Your task to perform on an android device: turn off data saver in the chrome app Image 0: 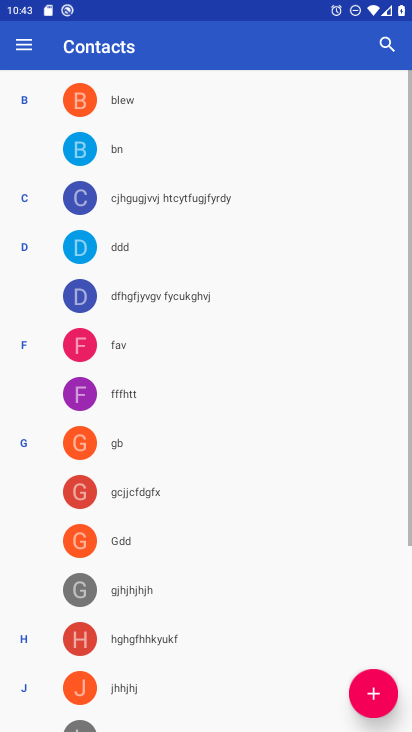
Step 0: drag from (205, 590) to (227, 229)
Your task to perform on an android device: turn off data saver in the chrome app Image 1: 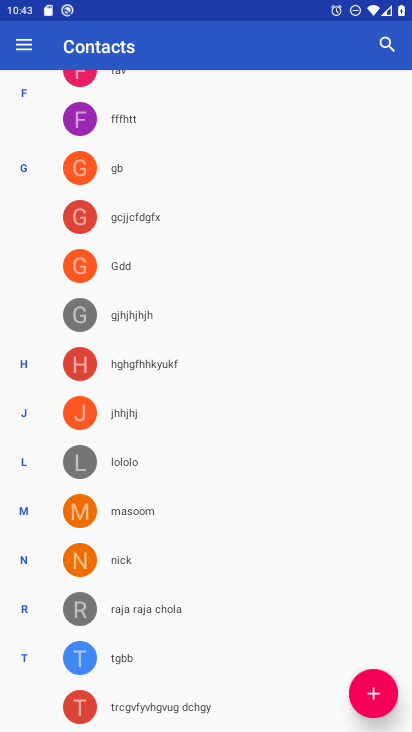
Step 1: press home button
Your task to perform on an android device: turn off data saver in the chrome app Image 2: 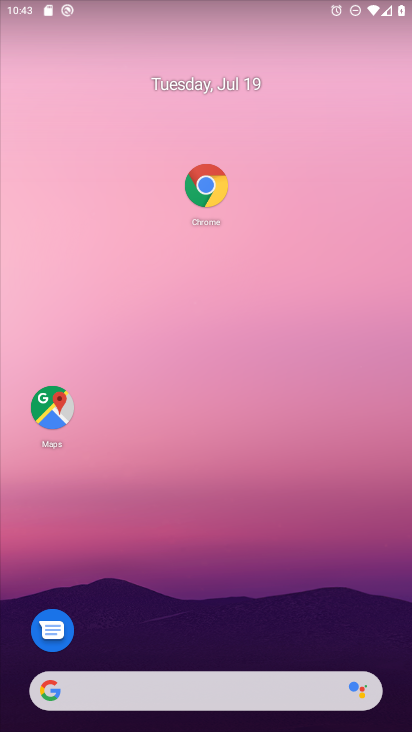
Step 2: drag from (259, 560) to (270, 126)
Your task to perform on an android device: turn off data saver in the chrome app Image 3: 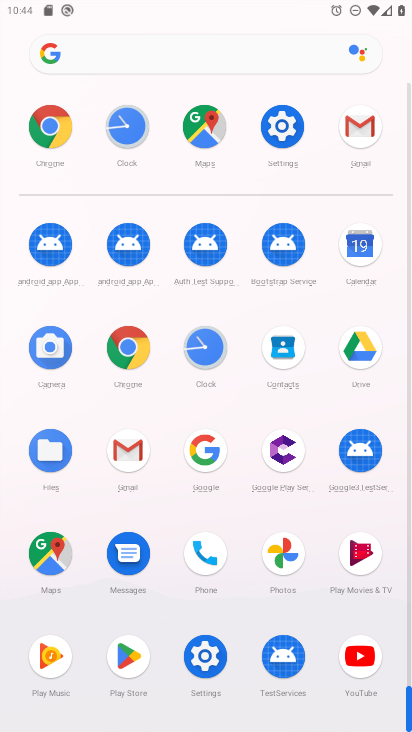
Step 3: click (131, 366)
Your task to perform on an android device: turn off data saver in the chrome app Image 4: 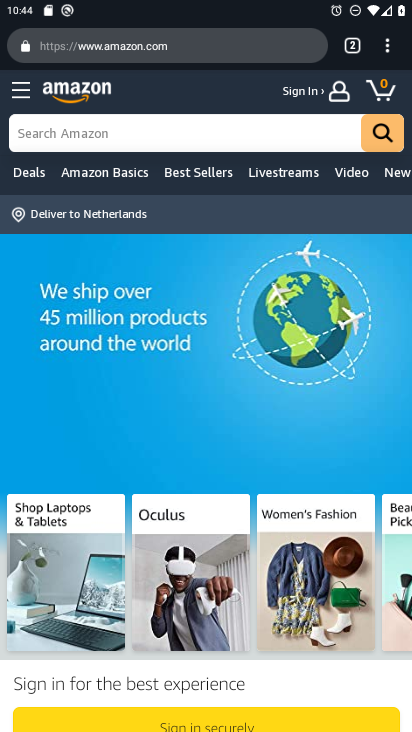
Step 4: click (385, 56)
Your task to perform on an android device: turn off data saver in the chrome app Image 5: 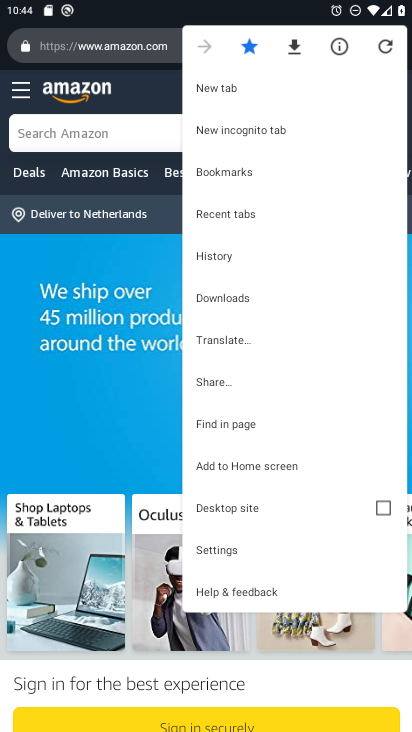
Step 5: click (241, 546)
Your task to perform on an android device: turn off data saver in the chrome app Image 6: 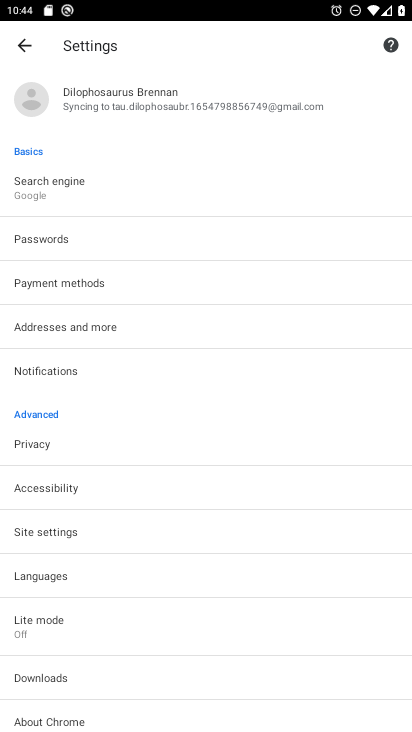
Step 6: drag from (132, 528) to (139, 339)
Your task to perform on an android device: turn off data saver in the chrome app Image 7: 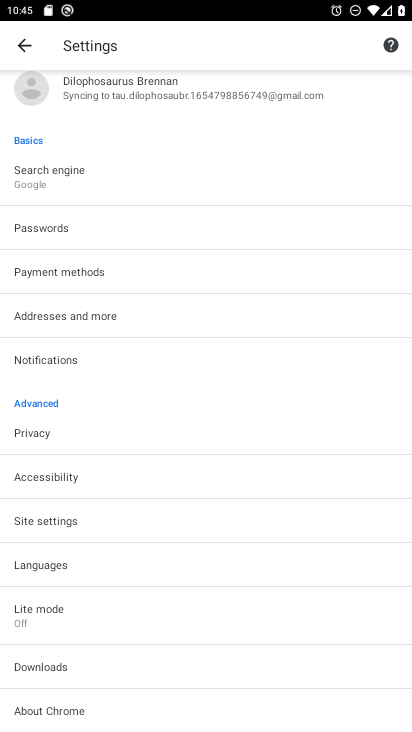
Step 7: click (84, 614)
Your task to perform on an android device: turn off data saver in the chrome app Image 8: 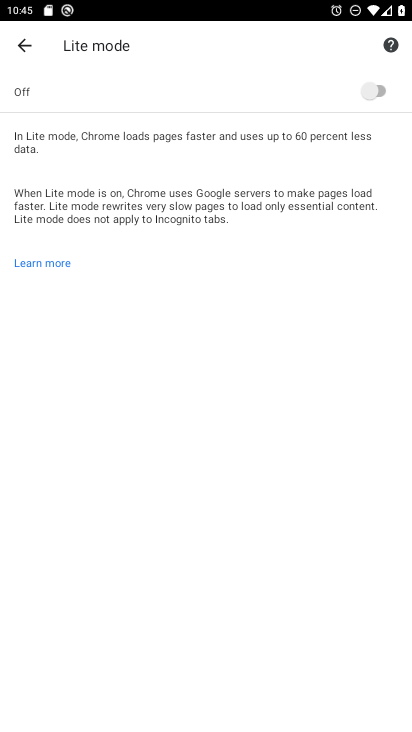
Step 8: task complete